Your task to perform on an android device: turn notification dots on Image 0: 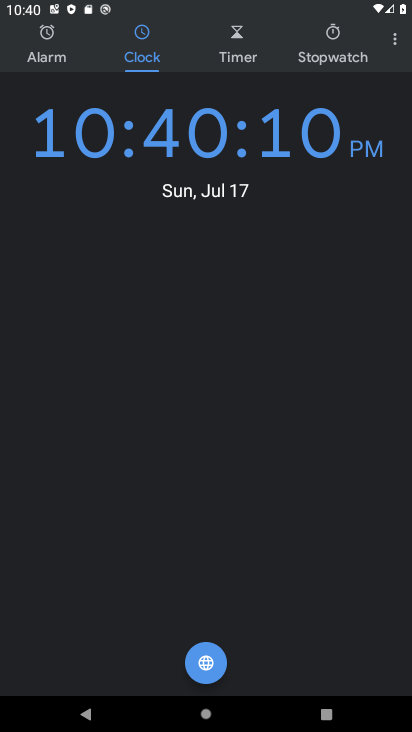
Step 0: press home button
Your task to perform on an android device: turn notification dots on Image 1: 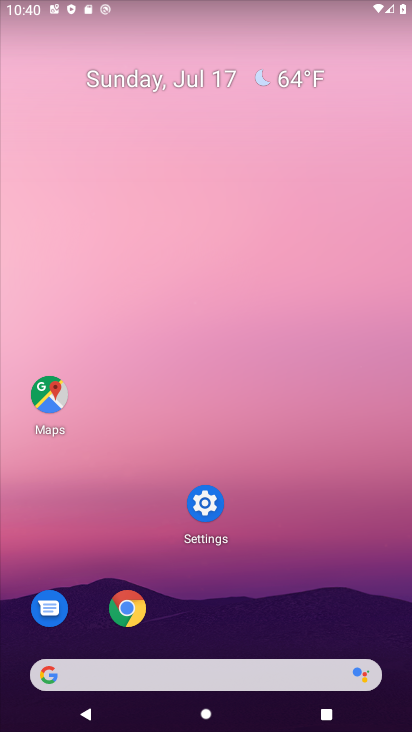
Step 1: click (206, 498)
Your task to perform on an android device: turn notification dots on Image 2: 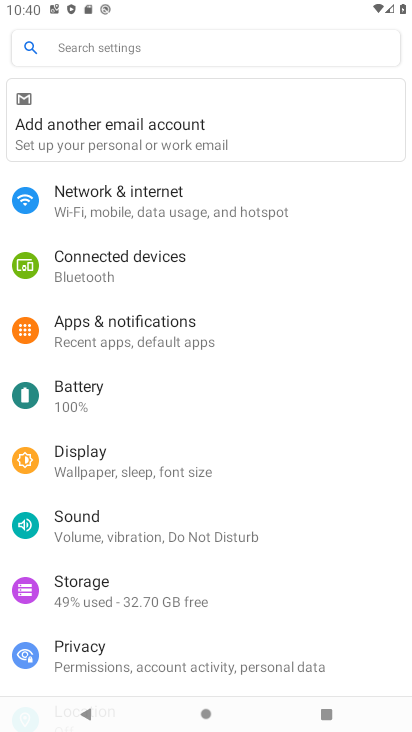
Step 2: click (98, 328)
Your task to perform on an android device: turn notification dots on Image 3: 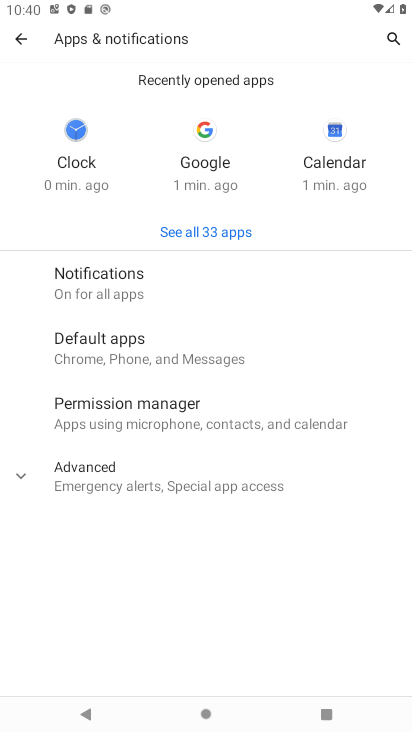
Step 3: click (130, 284)
Your task to perform on an android device: turn notification dots on Image 4: 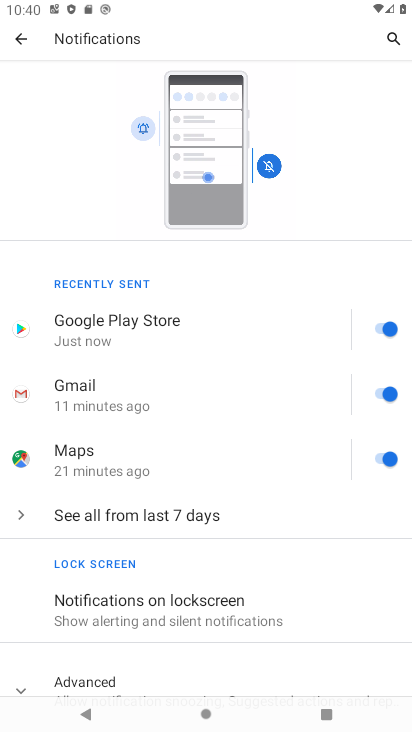
Step 4: click (34, 658)
Your task to perform on an android device: turn notification dots on Image 5: 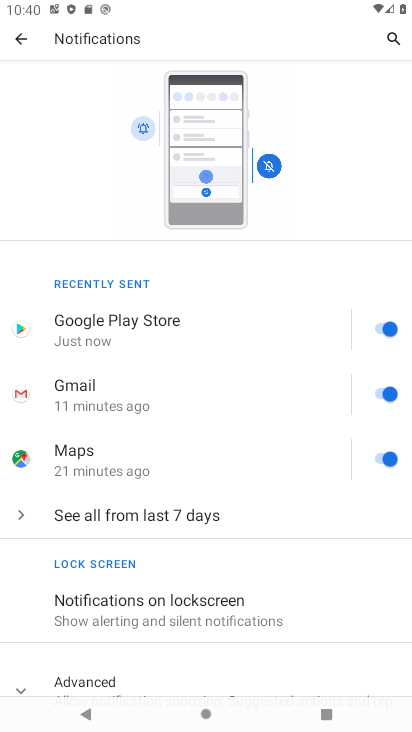
Step 5: click (35, 667)
Your task to perform on an android device: turn notification dots on Image 6: 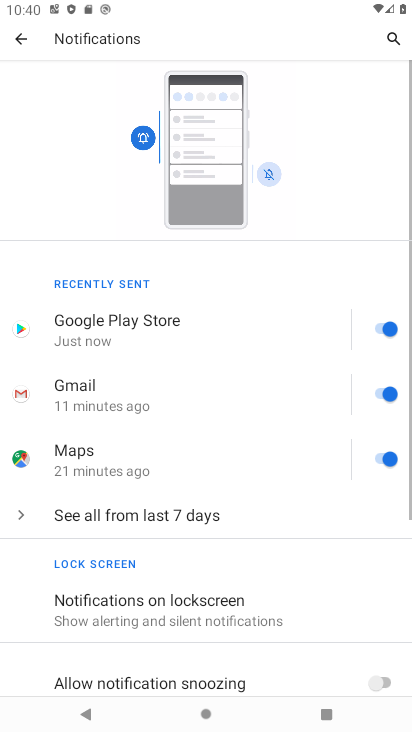
Step 6: task complete